Your task to perform on an android device: open chrome privacy settings Image 0: 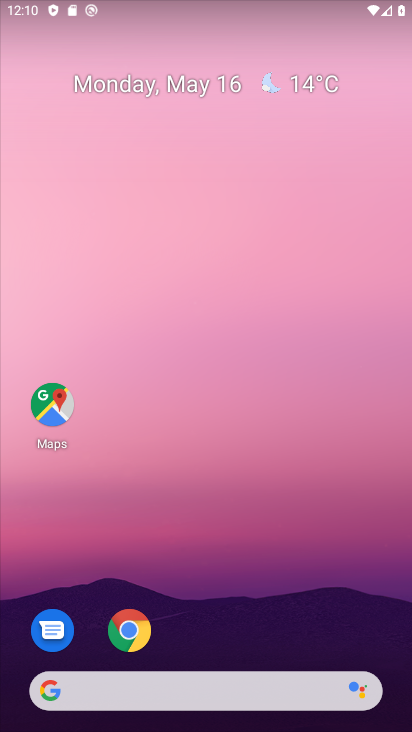
Step 0: click (142, 629)
Your task to perform on an android device: open chrome privacy settings Image 1: 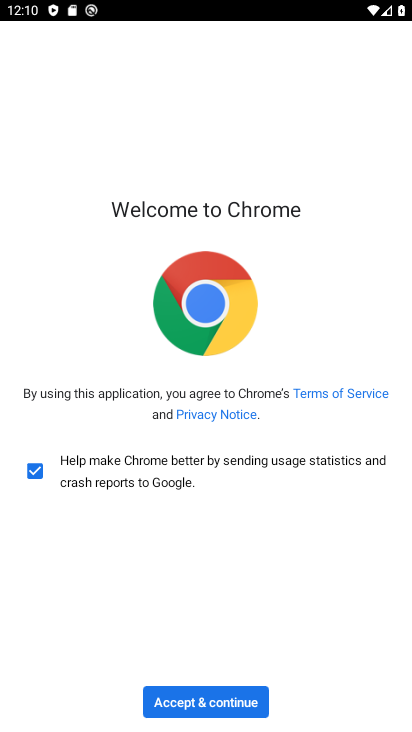
Step 1: click (222, 698)
Your task to perform on an android device: open chrome privacy settings Image 2: 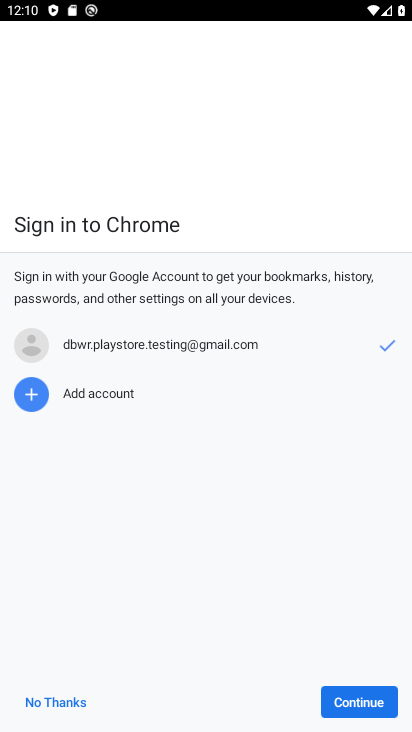
Step 2: click (375, 706)
Your task to perform on an android device: open chrome privacy settings Image 3: 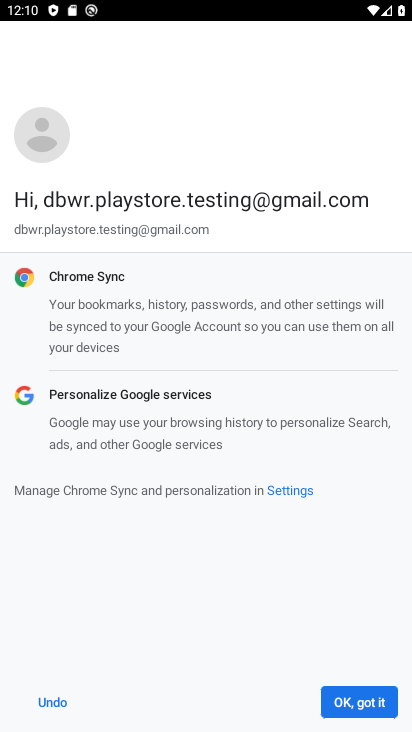
Step 3: click (375, 706)
Your task to perform on an android device: open chrome privacy settings Image 4: 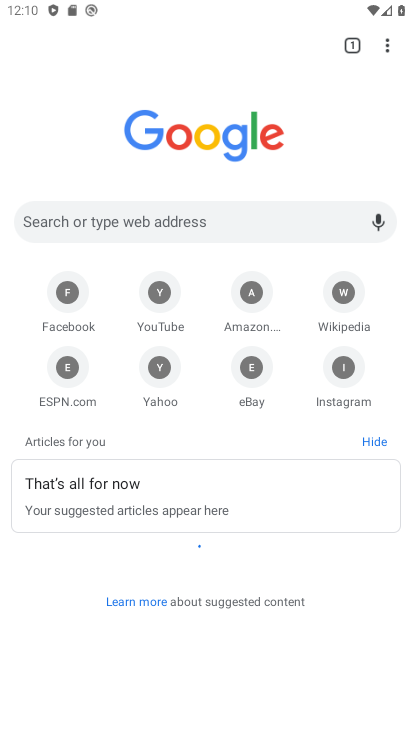
Step 4: click (383, 50)
Your task to perform on an android device: open chrome privacy settings Image 5: 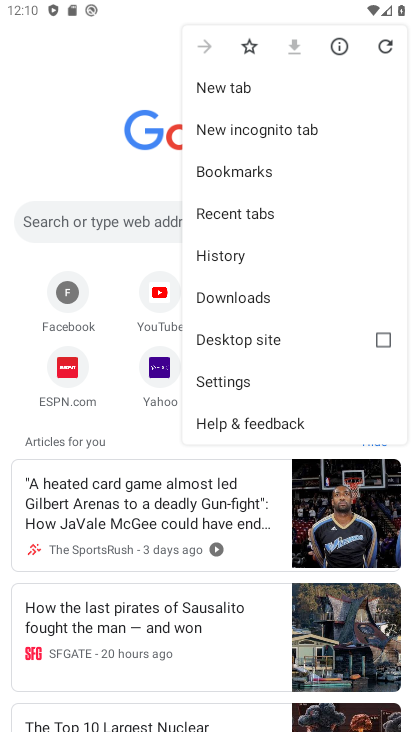
Step 5: click (234, 384)
Your task to perform on an android device: open chrome privacy settings Image 6: 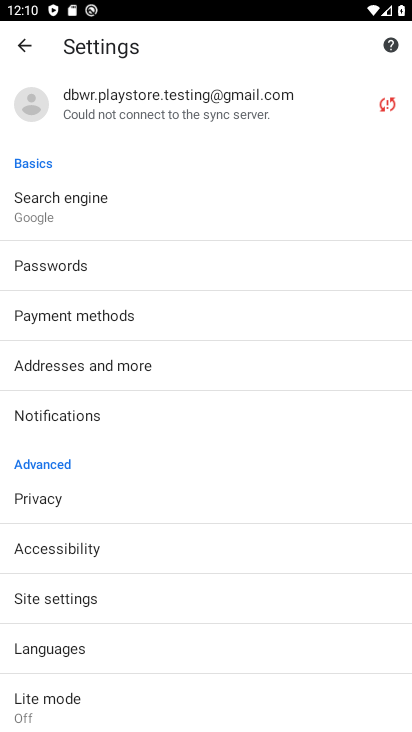
Step 6: click (104, 505)
Your task to perform on an android device: open chrome privacy settings Image 7: 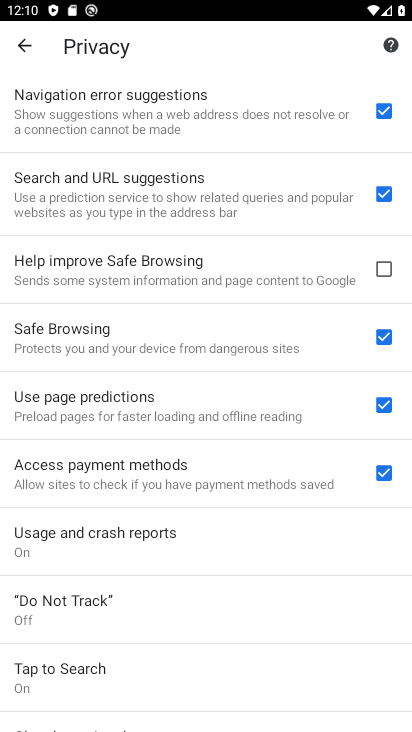
Step 7: task complete